Your task to perform on an android device: check out phone information Image 0: 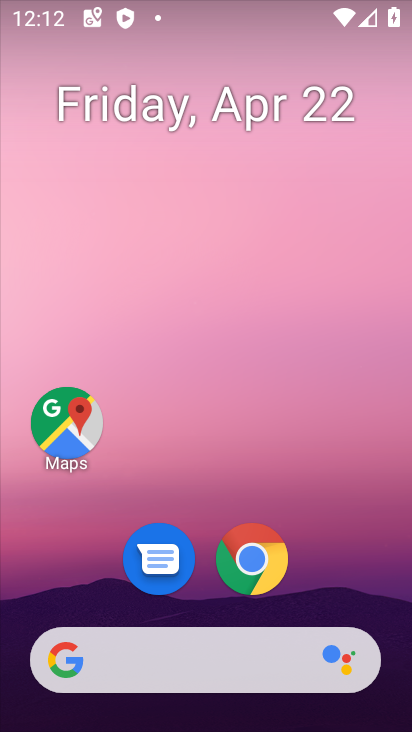
Step 0: click (251, 234)
Your task to perform on an android device: check out phone information Image 1: 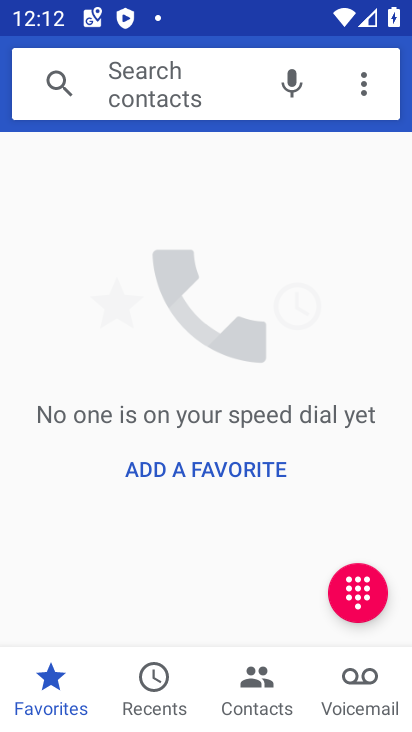
Step 1: press home button
Your task to perform on an android device: check out phone information Image 2: 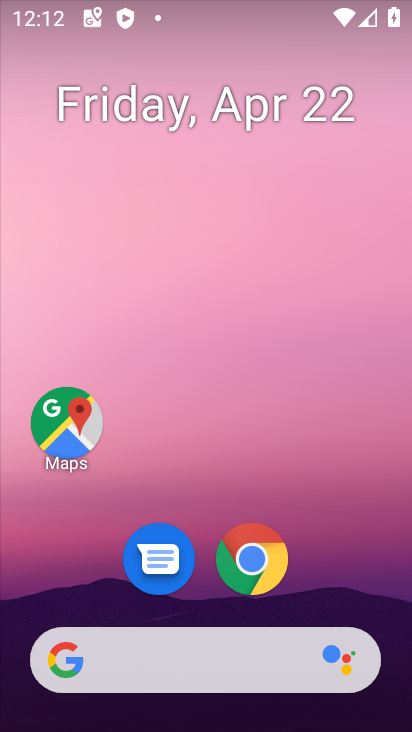
Step 2: drag from (320, 436) to (251, 185)
Your task to perform on an android device: check out phone information Image 3: 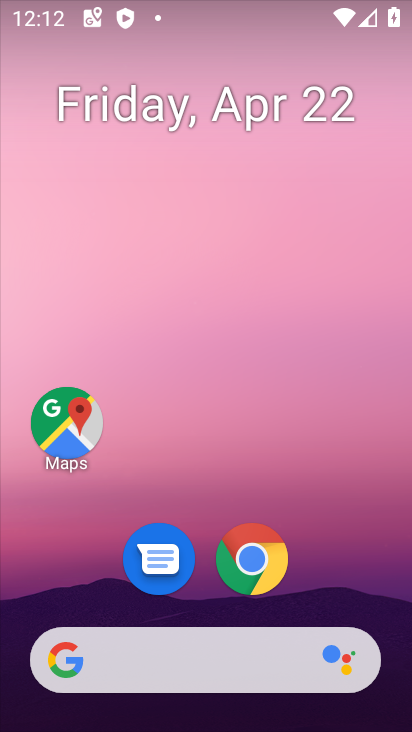
Step 3: drag from (333, 573) to (309, 147)
Your task to perform on an android device: check out phone information Image 4: 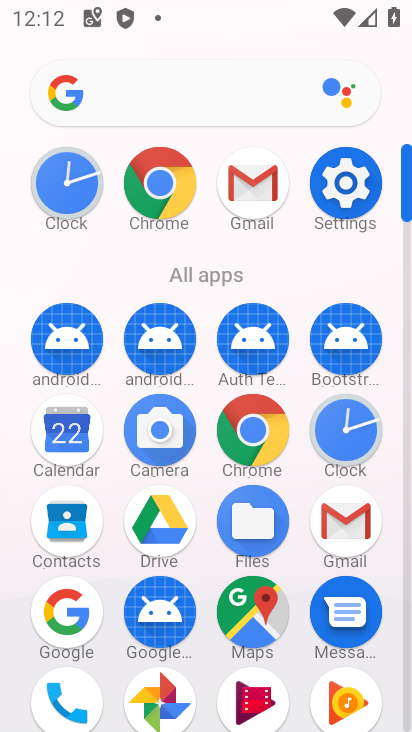
Step 4: click (344, 158)
Your task to perform on an android device: check out phone information Image 5: 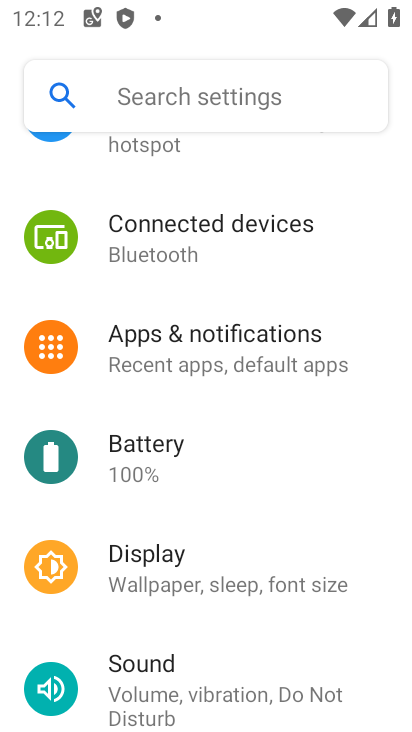
Step 5: drag from (159, 608) to (204, 245)
Your task to perform on an android device: check out phone information Image 6: 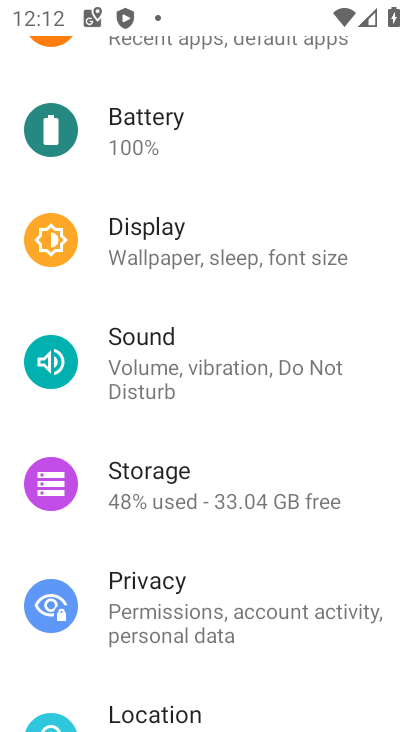
Step 6: drag from (262, 495) to (279, 162)
Your task to perform on an android device: check out phone information Image 7: 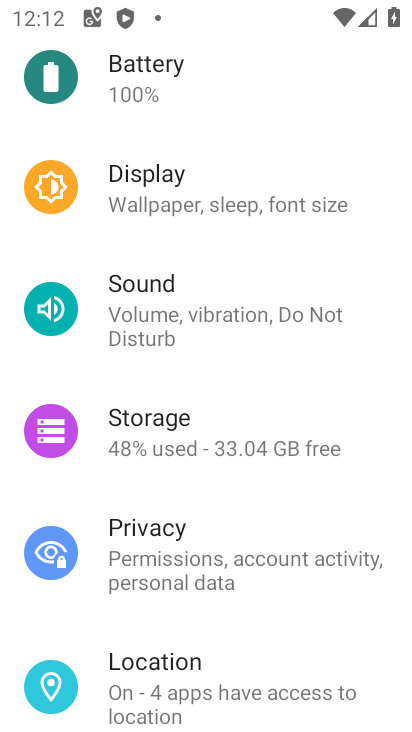
Step 7: drag from (217, 585) to (206, 91)
Your task to perform on an android device: check out phone information Image 8: 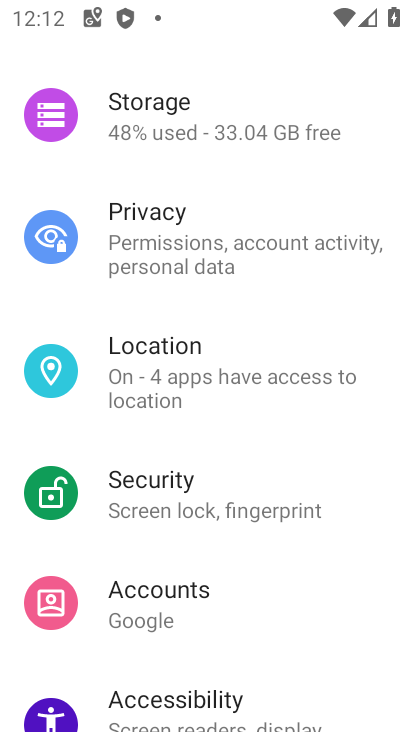
Step 8: drag from (234, 592) to (290, 155)
Your task to perform on an android device: check out phone information Image 9: 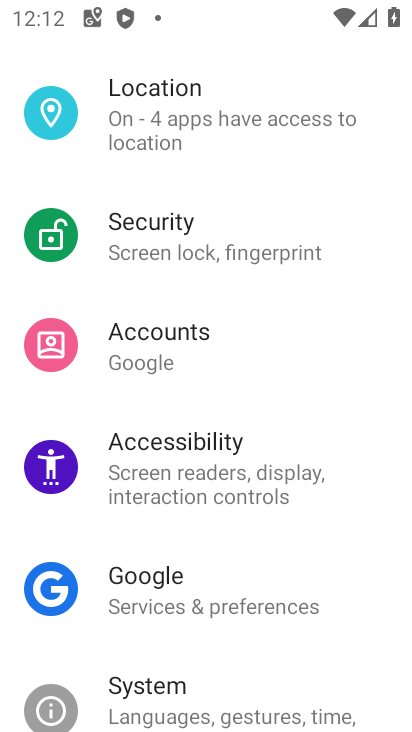
Step 9: drag from (184, 673) to (204, 261)
Your task to perform on an android device: check out phone information Image 10: 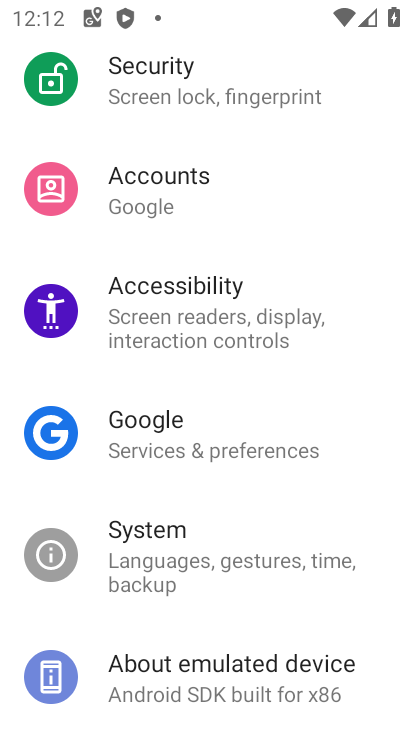
Step 10: click (170, 682)
Your task to perform on an android device: check out phone information Image 11: 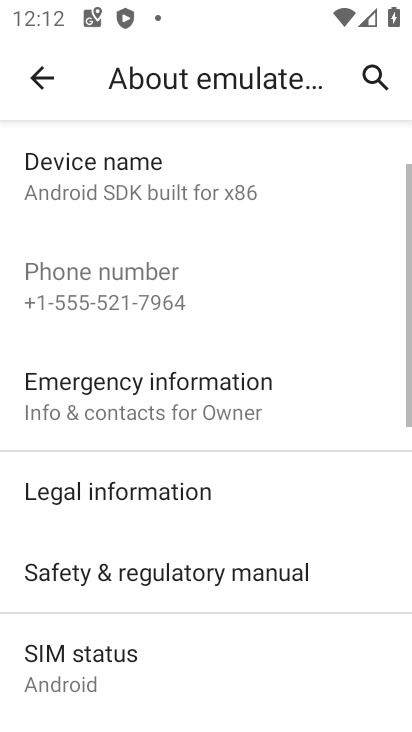
Step 11: task complete